Your task to perform on an android device: Go to Yahoo.com Image 0: 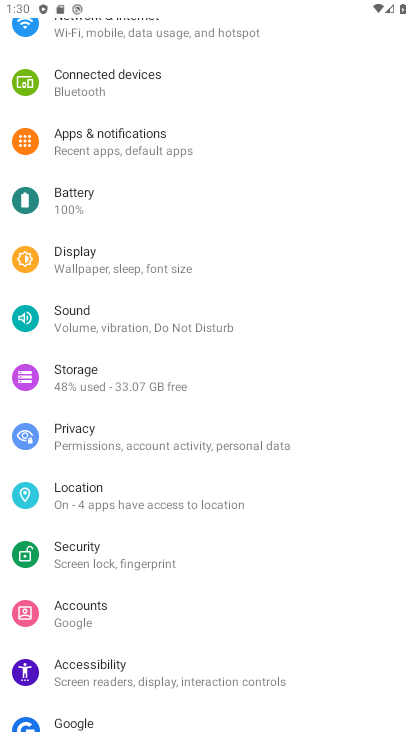
Step 0: press home button
Your task to perform on an android device: Go to Yahoo.com Image 1: 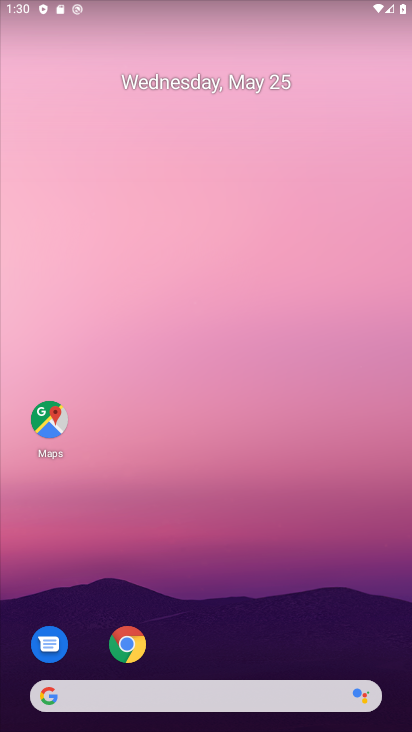
Step 1: drag from (326, 622) to (337, 165)
Your task to perform on an android device: Go to Yahoo.com Image 2: 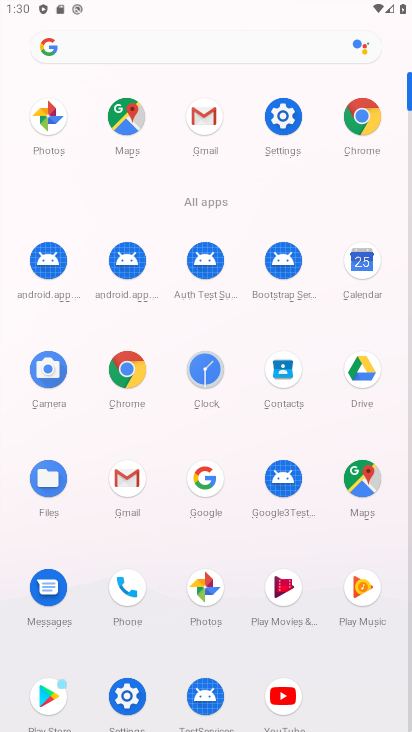
Step 2: click (140, 378)
Your task to perform on an android device: Go to Yahoo.com Image 3: 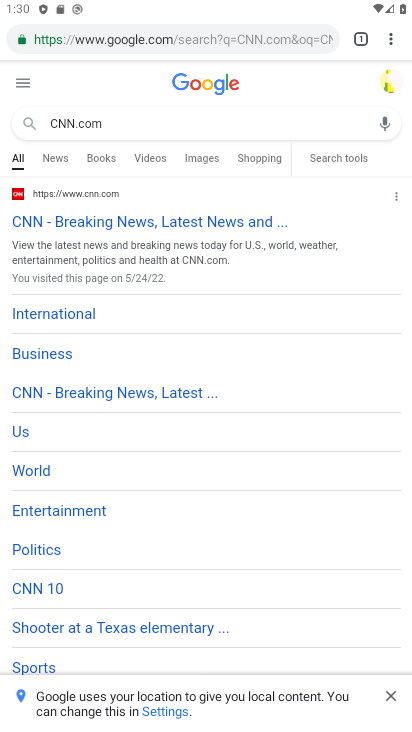
Step 3: press back button
Your task to perform on an android device: Go to Yahoo.com Image 4: 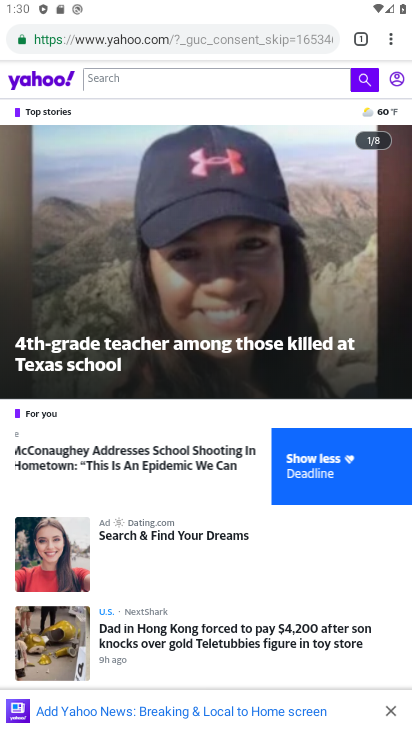
Step 4: press back button
Your task to perform on an android device: Go to Yahoo.com Image 5: 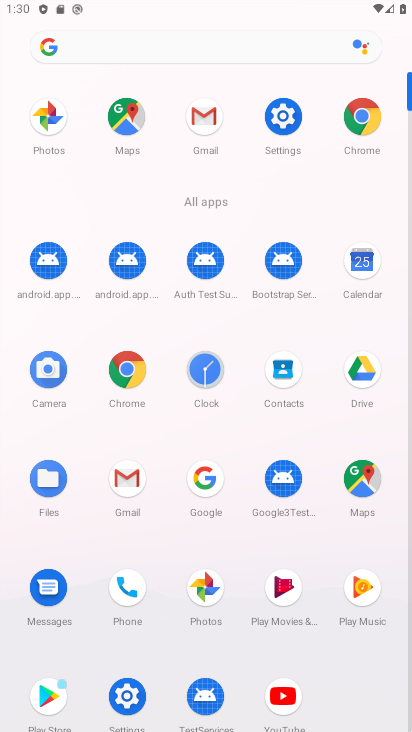
Step 5: click (133, 385)
Your task to perform on an android device: Go to Yahoo.com Image 6: 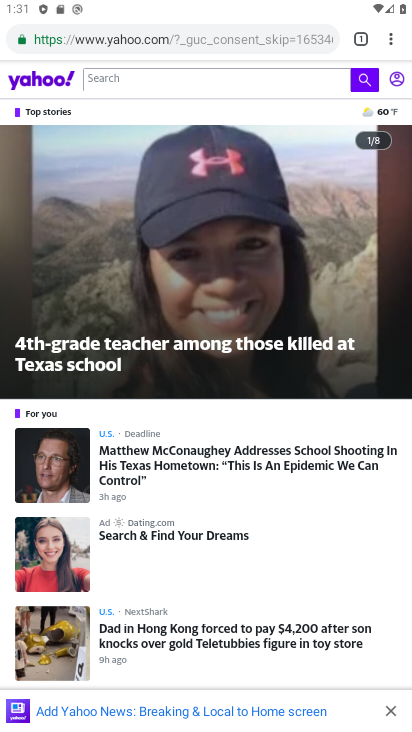
Step 6: task complete